Your task to perform on an android device: turn on javascript in the chrome app Image 0: 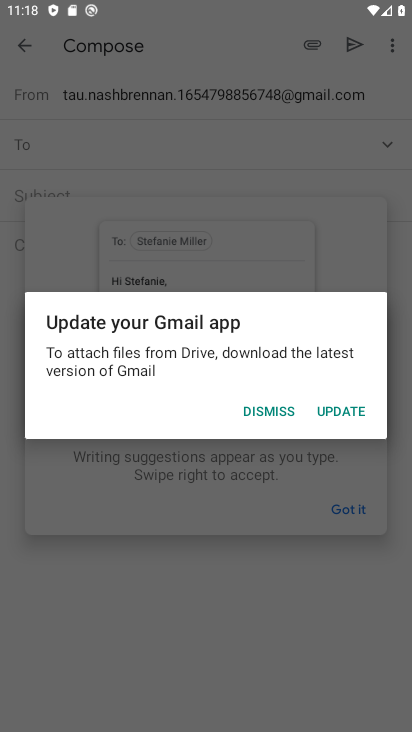
Step 0: press home button
Your task to perform on an android device: turn on javascript in the chrome app Image 1: 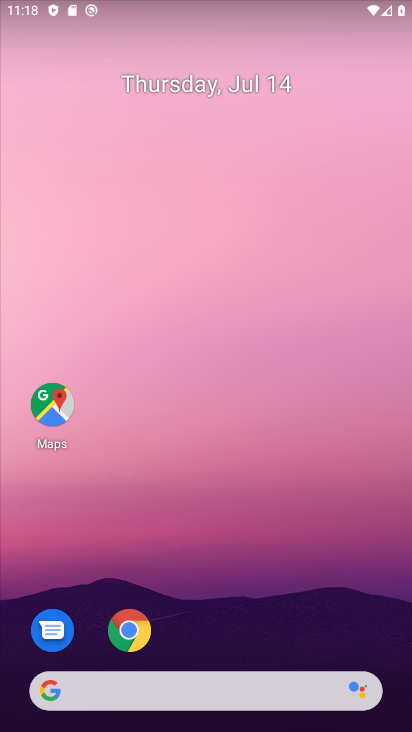
Step 1: drag from (322, 526) to (408, 2)
Your task to perform on an android device: turn on javascript in the chrome app Image 2: 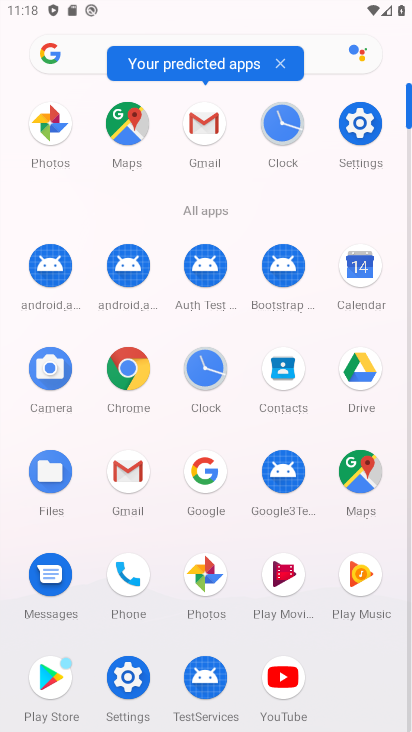
Step 2: click (132, 357)
Your task to perform on an android device: turn on javascript in the chrome app Image 3: 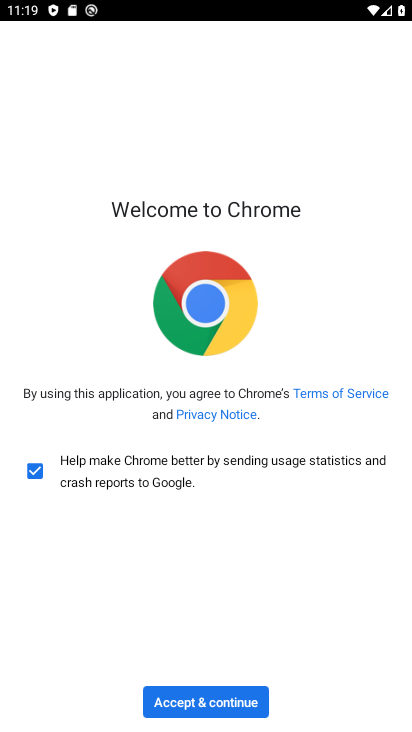
Step 3: click (223, 713)
Your task to perform on an android device: turn on javascript in the chrome app Image 4: 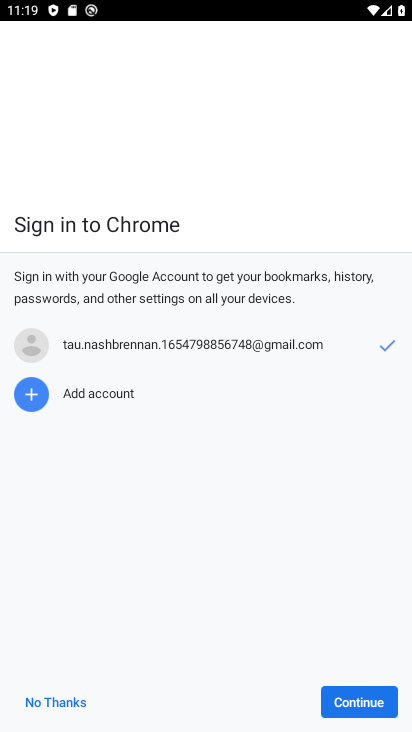
Step 4: click (75, 698)
Your task to perform on an android device: turn on javascript in the chrome app Image 5: 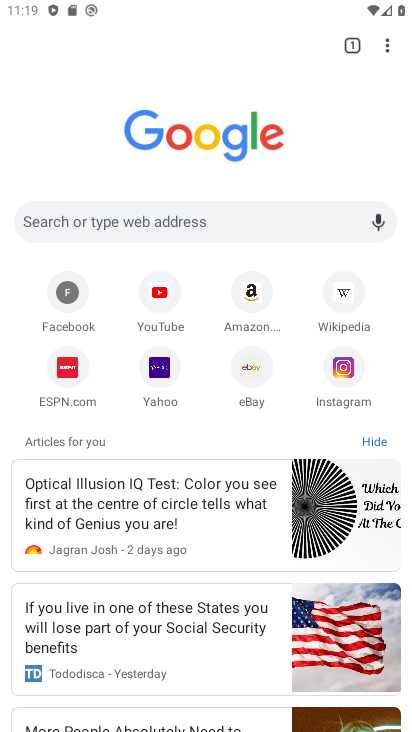
Step 5: drag from (388, 56) to (204, 391)
Your task to perform on an android device: turn on javascript in the chrome app Image 6: 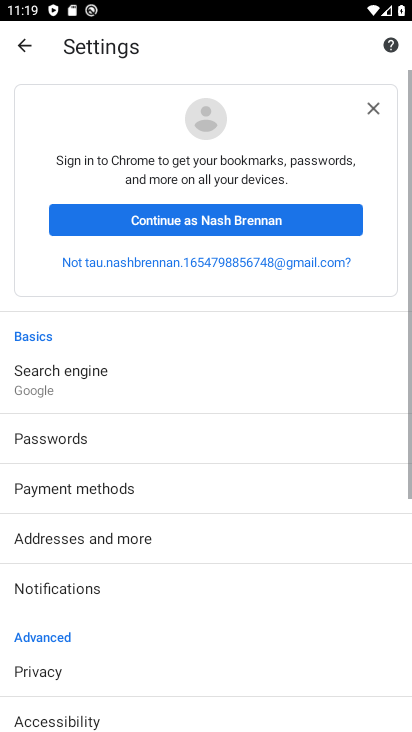
Step 6: drag from (152, 592) to (316, 197)
Your task to perform on an android device: turn on javascript in the chrome app Image 7: 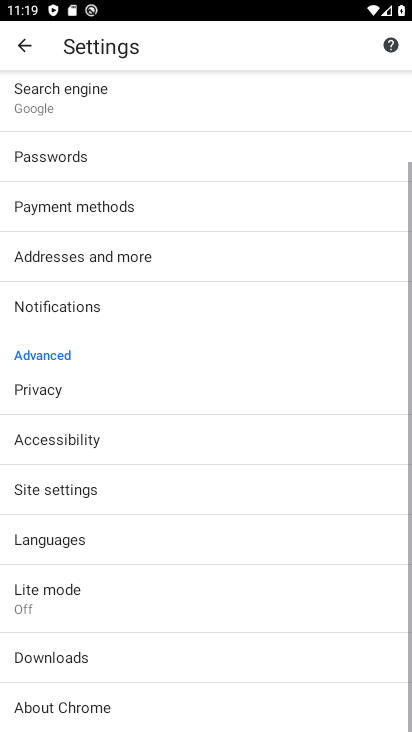
Step 7: click (23, 495)
Your task to perform on an android device: turn on javascript in the chrome app Image 8: 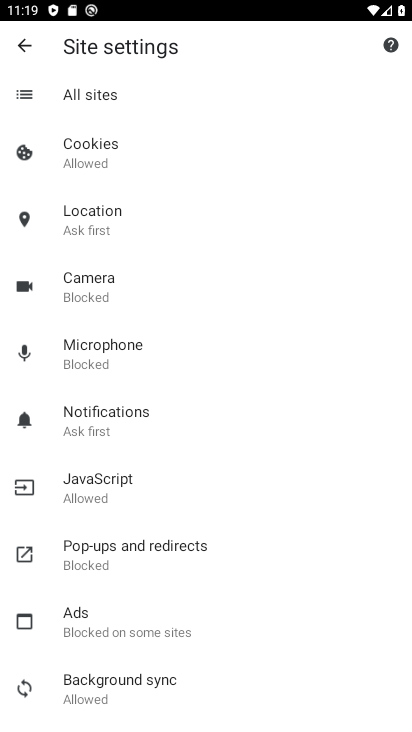
Step 8: click (114, 470)
Your task to perform on an android device: turn on javascript in the chrome app Image 9: 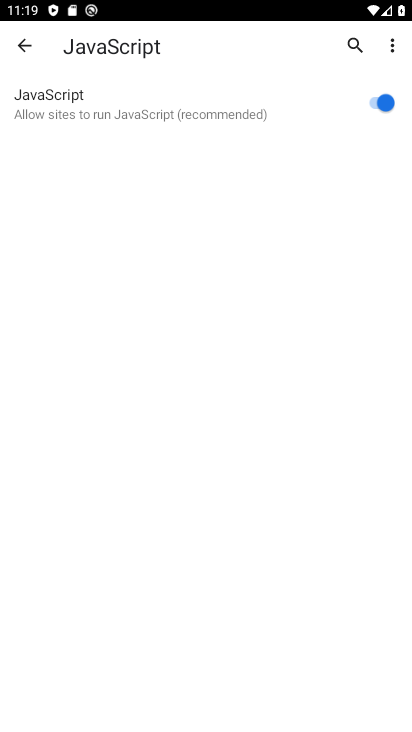
Step 9: task complete